Your task to perform on an android device: turn on sleep mode Image 0: 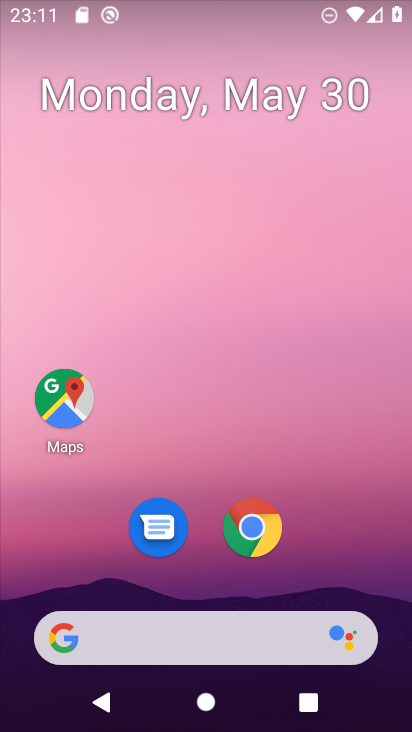
Step 0: drag from (325, 567) to (354, 210)
Your task to perform on an android device: turn on sleep mode Image 1: 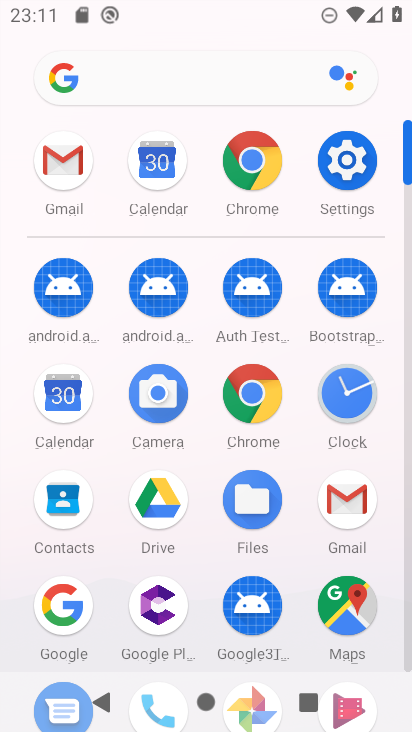
Step 1: click (337, 148)
Your task to perform on an android device: turn on sleep mode Image 2: 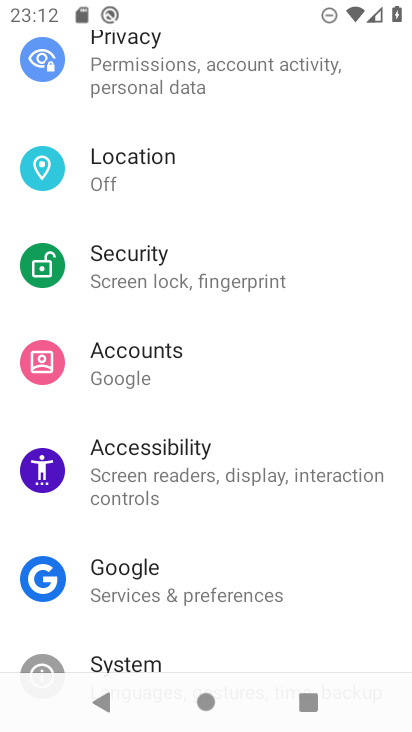
Step 2: task complete